Your task to perform on an android device: Open the Play Movies app and select the watchlist tab. Image 0: 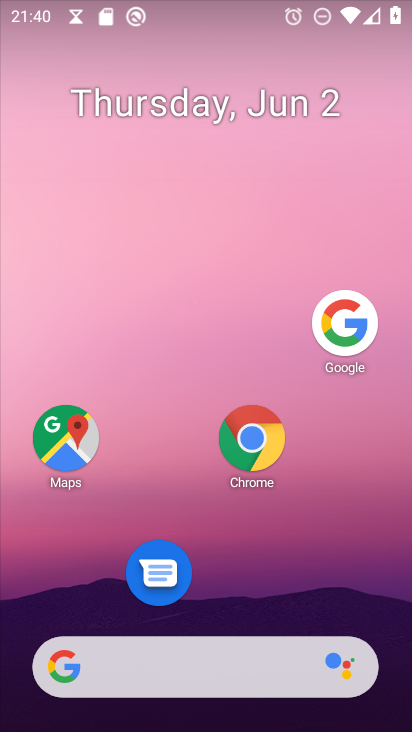
Step 0: press home button
Your task to perform on an android device: Open the Play Movies app and select the watchlist tab. Image 1: 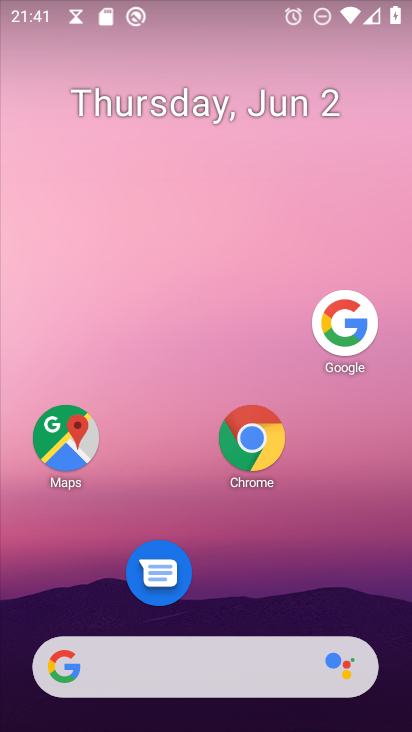
Step 1: drag from (161, 673) to (291, 130)
Your task to perform on an android device: Open the Play Movies app and select the watchlist tab. Image 2: 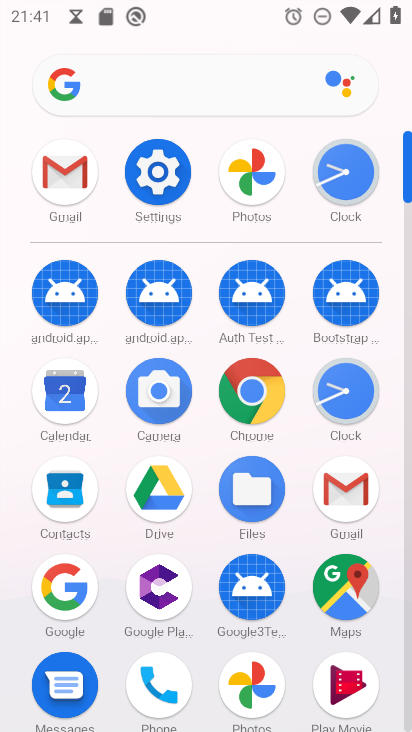
Step 2: click (349, 692)
Your task to perform on an android device: Open the Play Movies app and select the watchlist tab. Image 3: 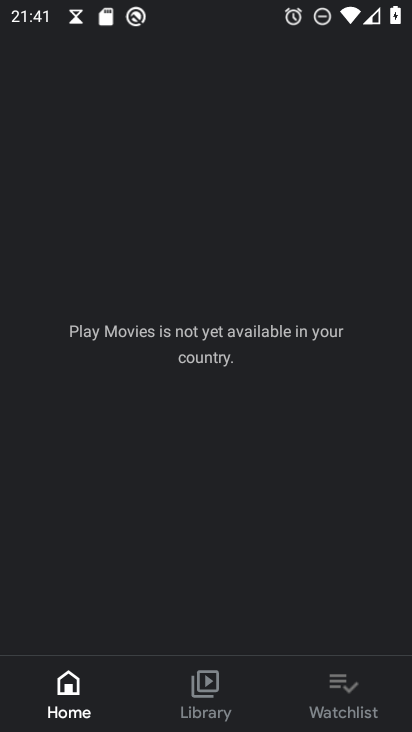
Step 3: click (332, 706)
Your task to perform on an android device: Open the Play Movies app and select the watchlist tab. Image 4: 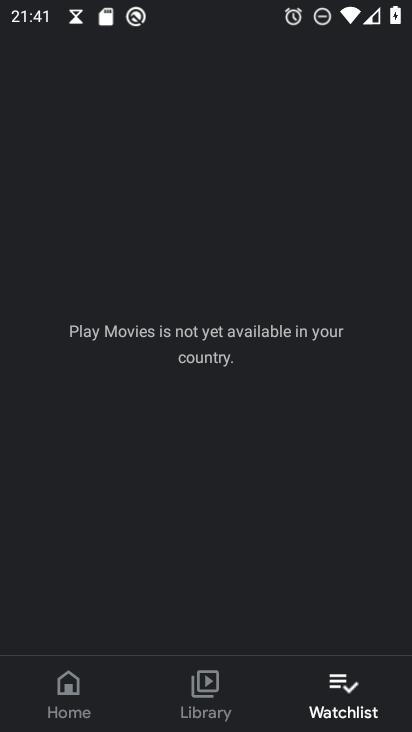
Step 4: task complete